Your task to perform on an android device: open device folders in google photos Image 0: 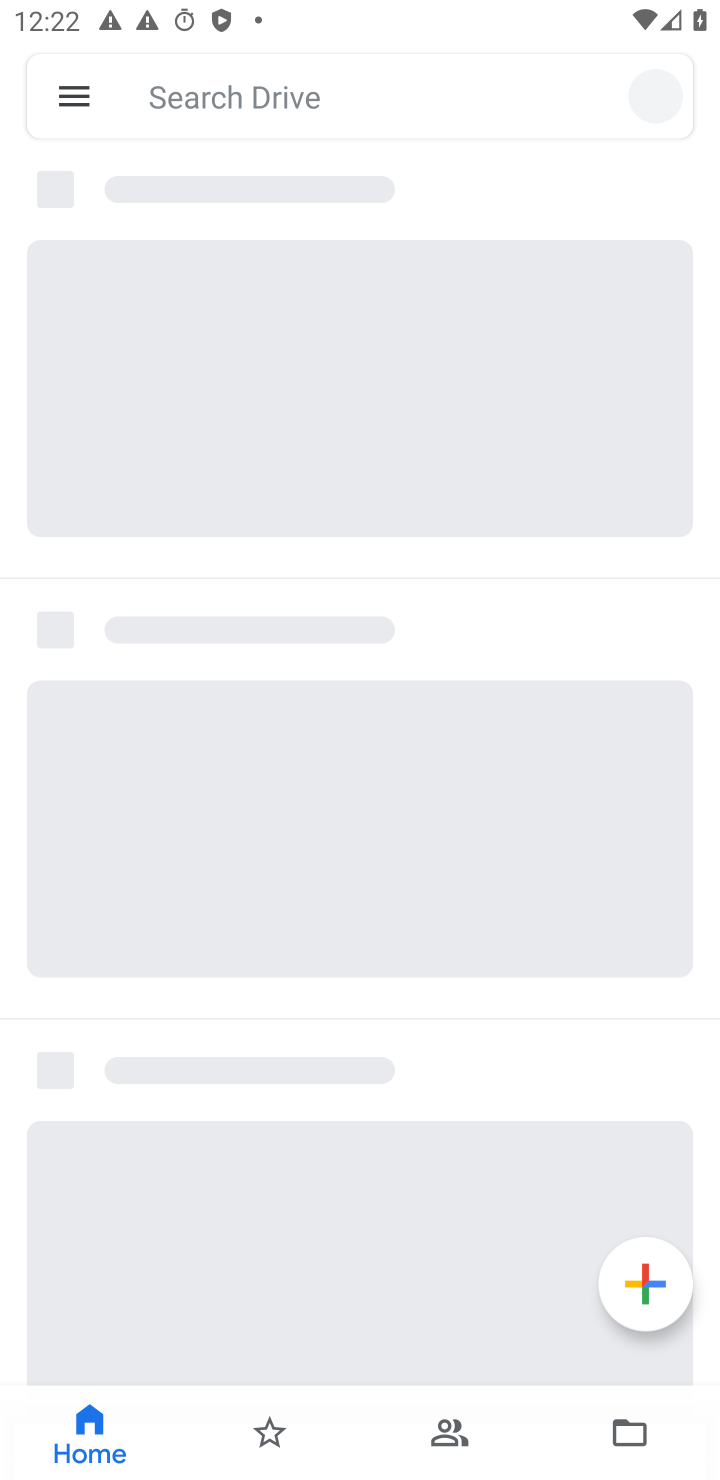
Step 0: press home button
Your task to perform on an android device: open device folders in google photos Image 1: 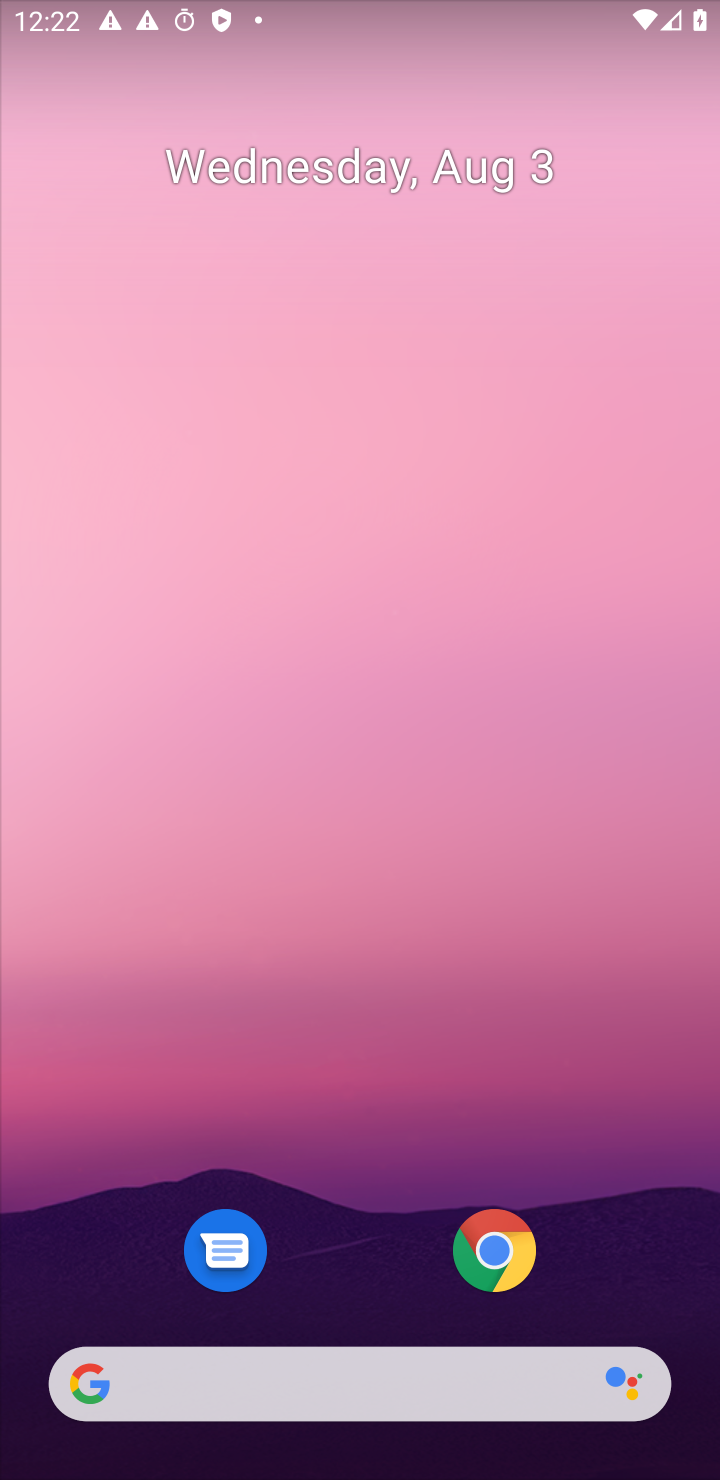
Step 1: drag from (405, 1193) to (426, 105)
Your task to perform on an android device: open device folders in google photos Image 2: 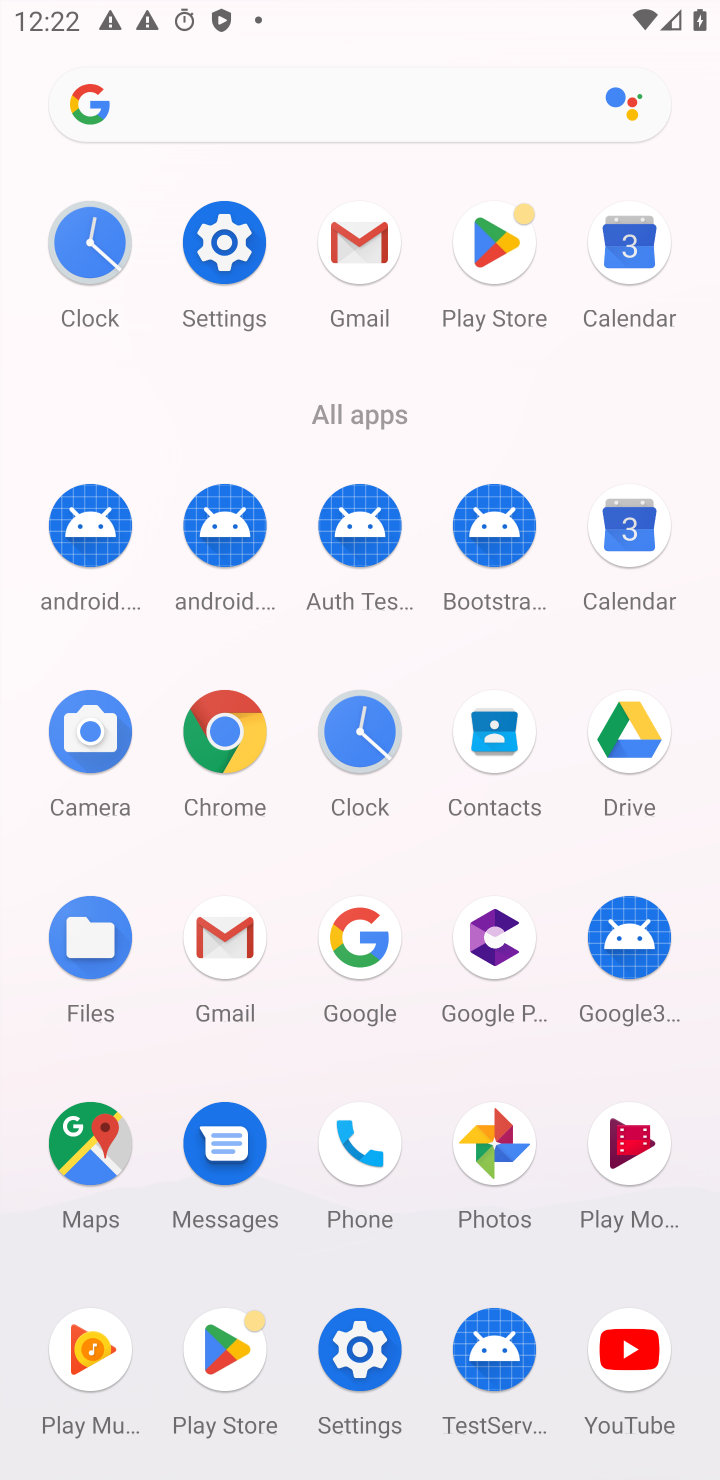
Step 2: click (479, 1148)
Your task to perform on an android device: open device folders in google photos Image 3: 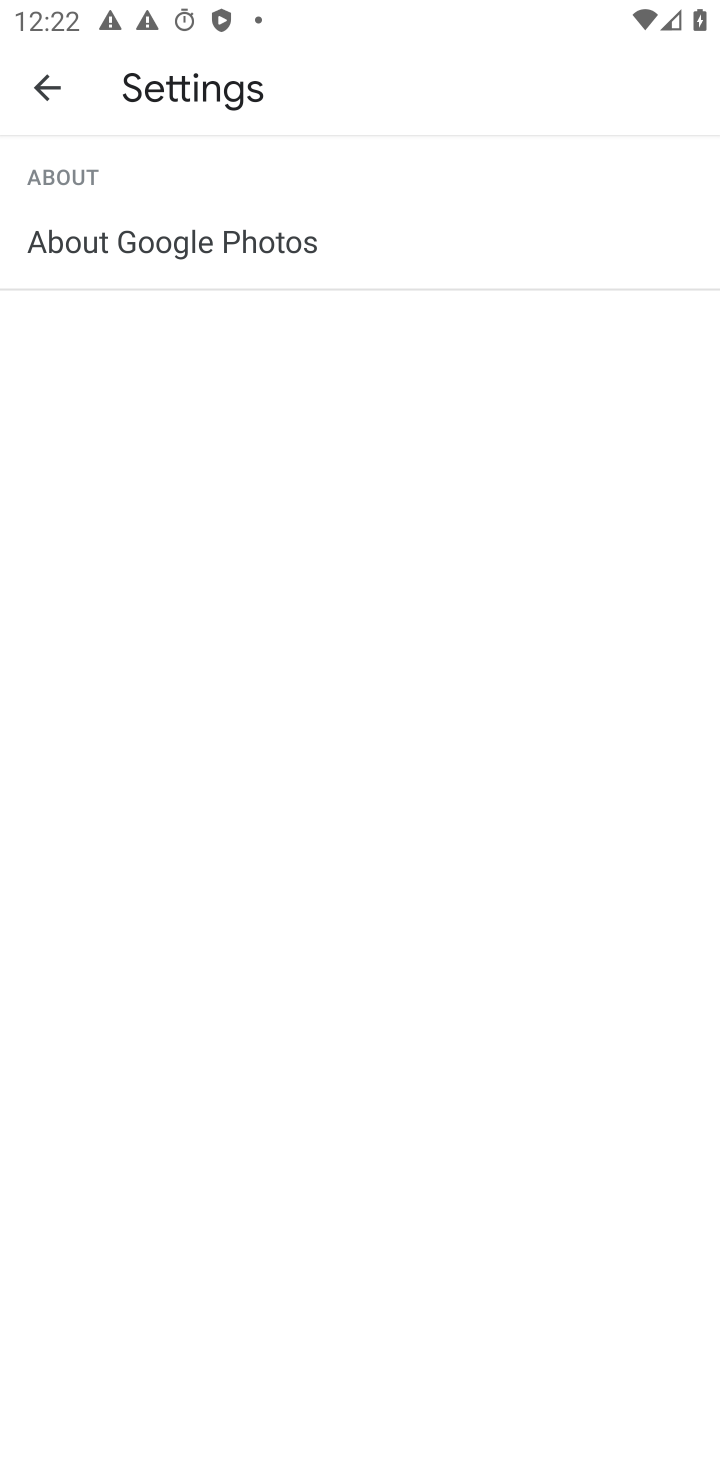
Step 3: click (21, 101)
Your task to perform on an android device: open device folders in google photos Image 4: 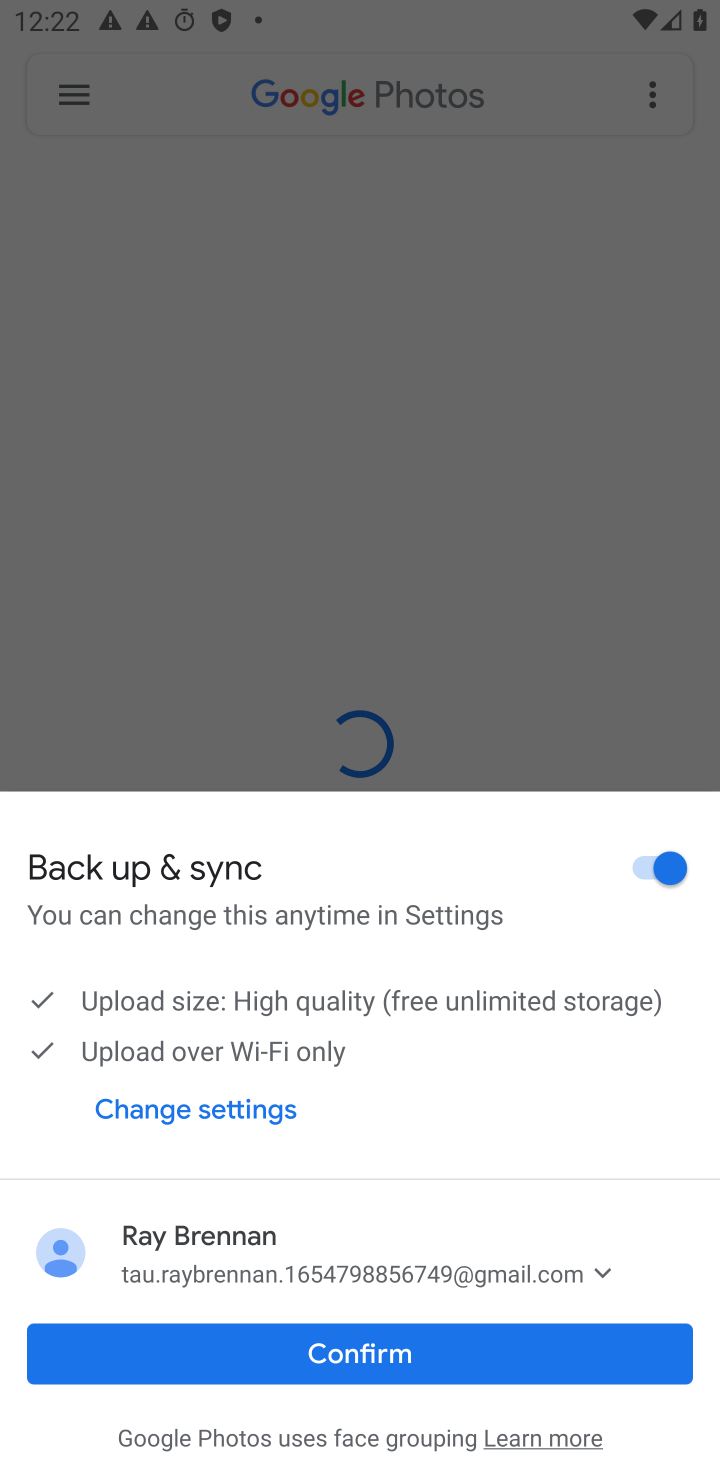
Step 4: click (384, 1361)
Your task to perform on an android device: open device folders in google photos Image 5: 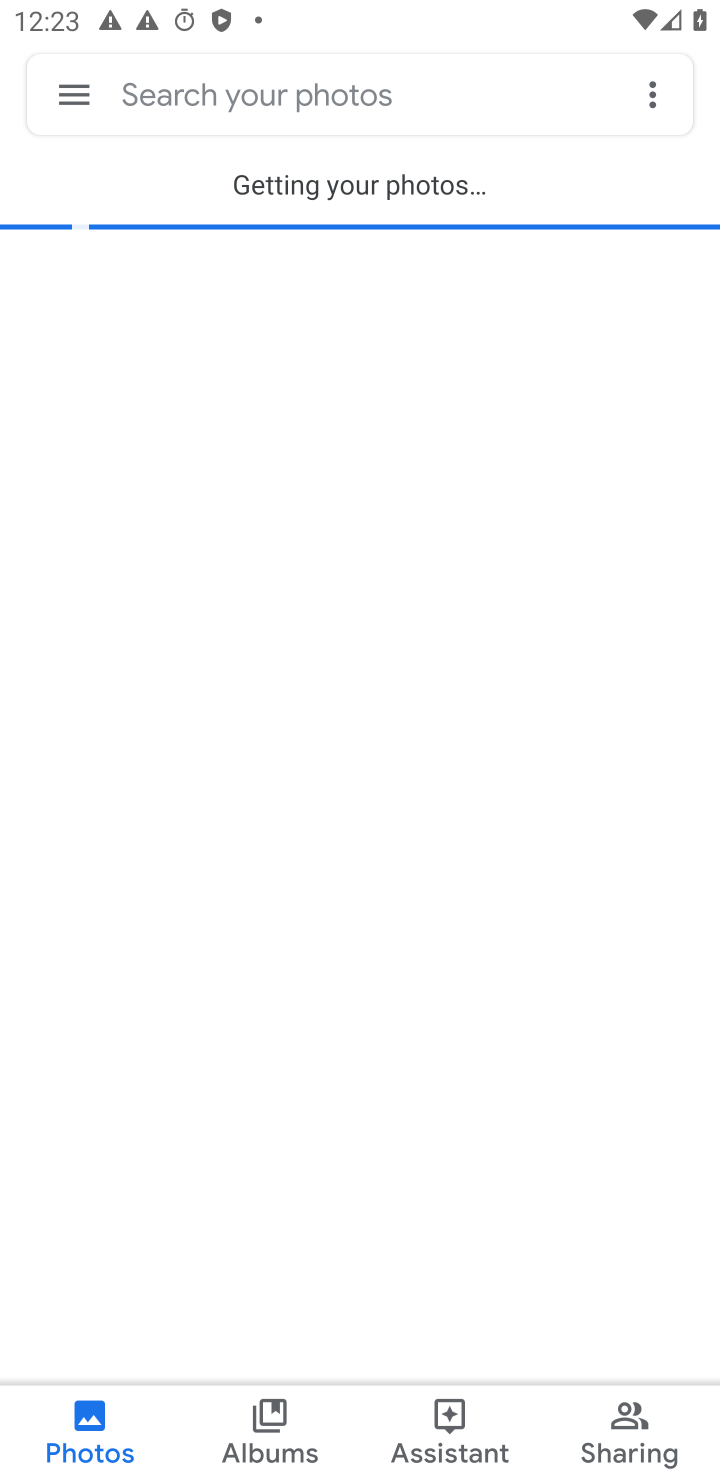
Step 5: click (70, 99)
Your task to perform on an android device: open device folders in google photos Image 6: 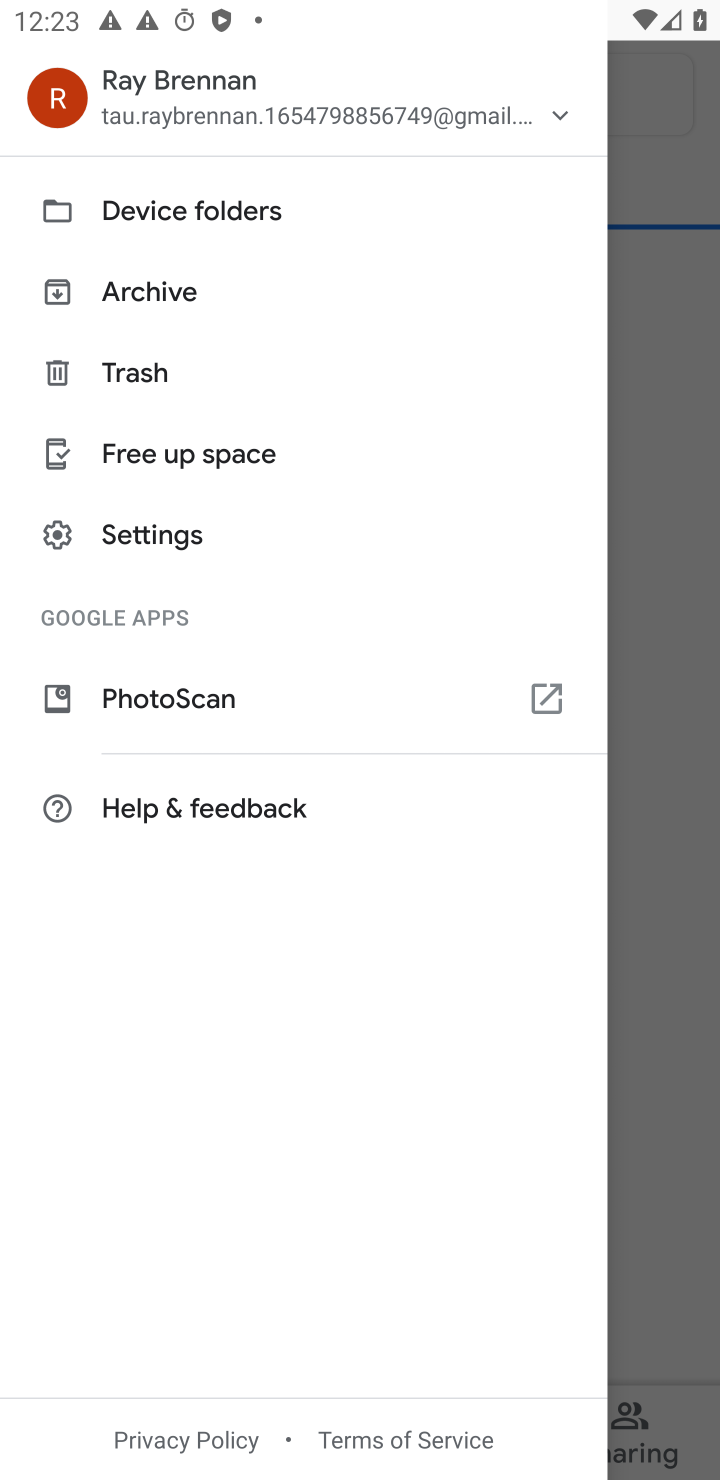
Step 6: click (180, 203)
Your task to perform on an android device: open device folders in google photos Image 7: 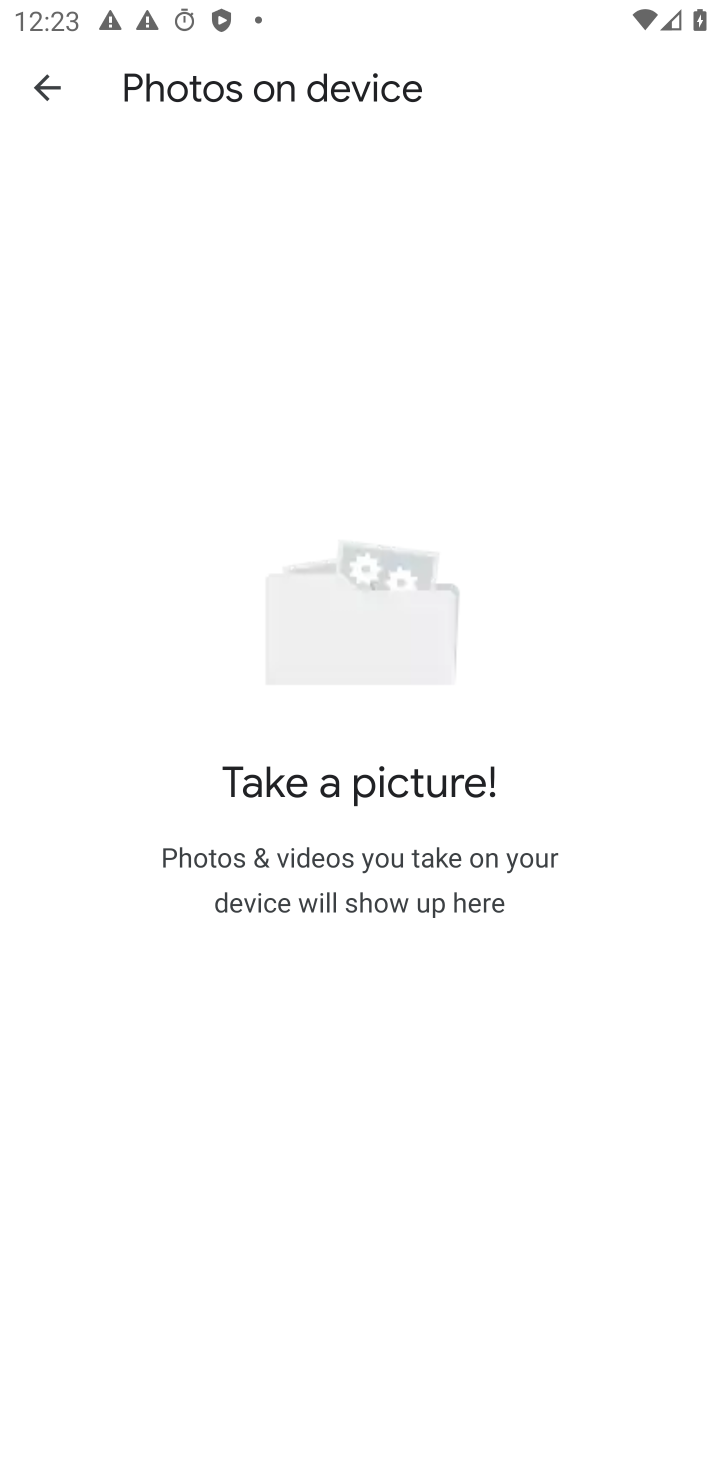
Step 7: task complete